Your task to perform on an android device: move an email to a new category in the gmail app Image 0: 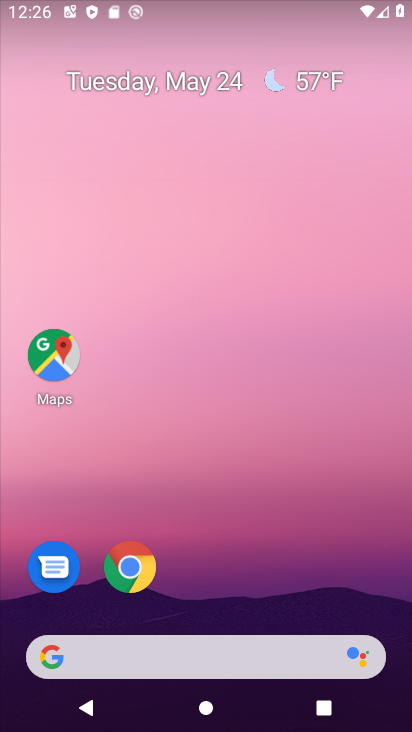
Step 0: drag from (206, 621) to (217, 296)
Your task to perform on an android device: move an email to a new category in the gmail app Image 1: 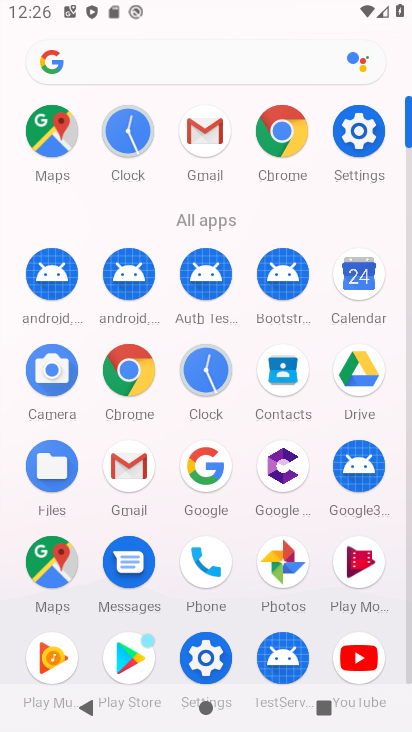
Step 1: click (128, 468)
Your task to perform on an android device: move an email to a new category in the gmail app Image 2: 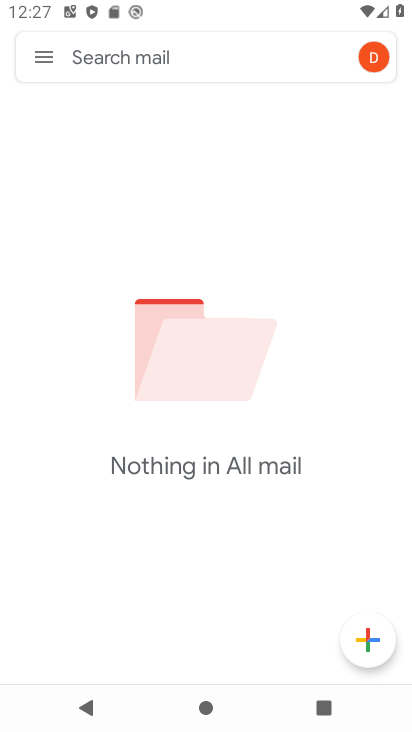
Step 2: click (28, 75)
Your task to perform on an android device: move an email to a new category in the gmail app Image 3: 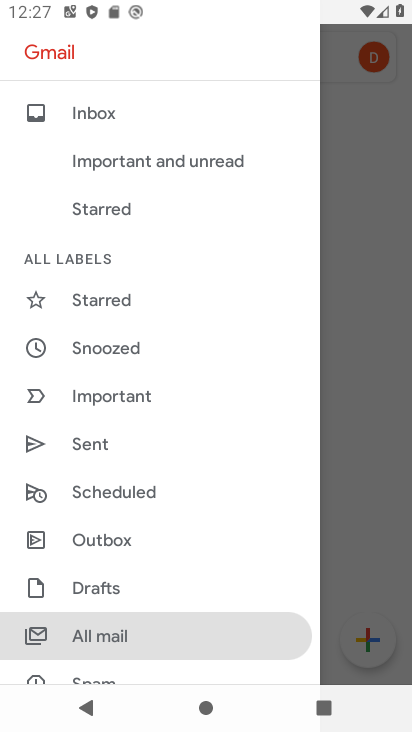
Step 3: click (171, 623)
Your task to perform on an android device: move an email to a new category in the gmail app Image 4: 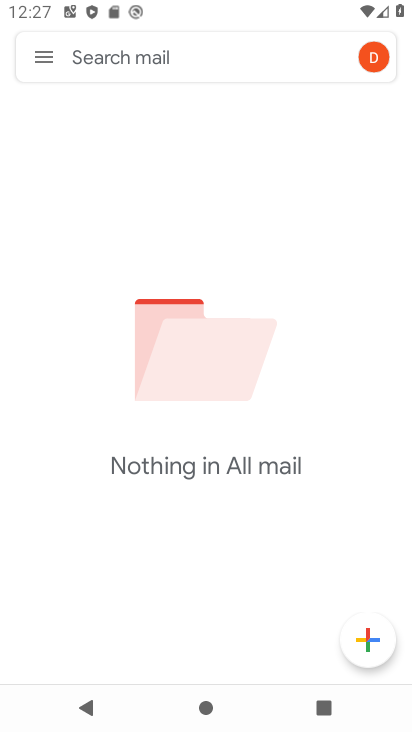
Step 4: task complete